Your task to perform on an android device: Open settings on Google Maps Image 0: 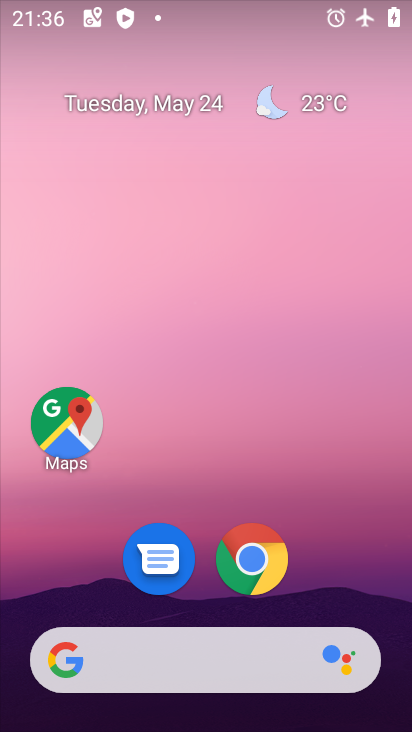
Step 0: drag from (329, 506) to (337, 132)
Your task to perform on an android device: Open settings on Google Maps Image 1: 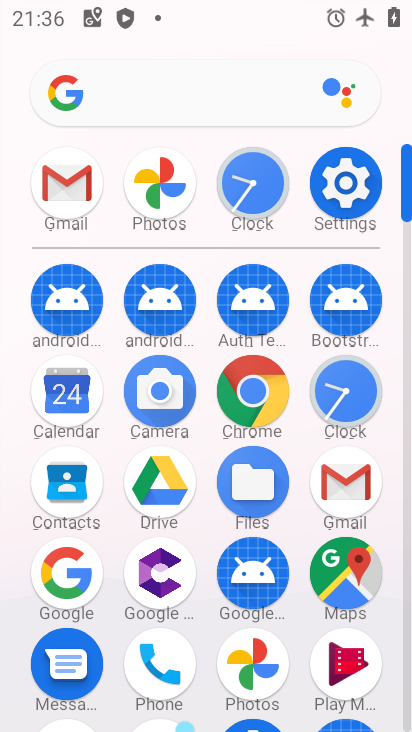
Step 1: click (361, 578)
Your task to perform on an android device: Open settings on Google Maps Image 2: 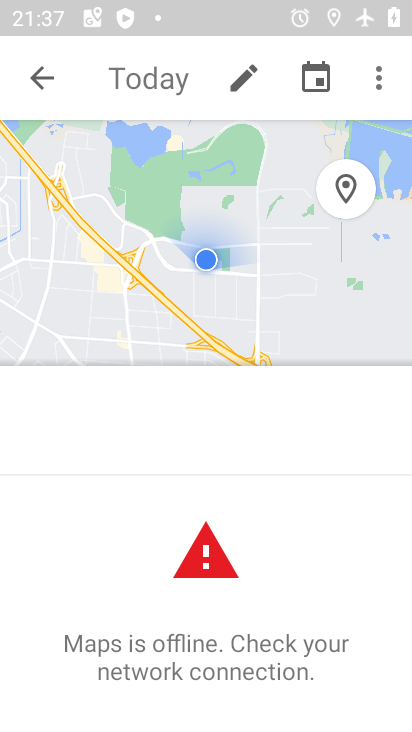
Step 2: click (50, 72)
Your task to perform on an android device: Open settings on Google Maps Image 3: 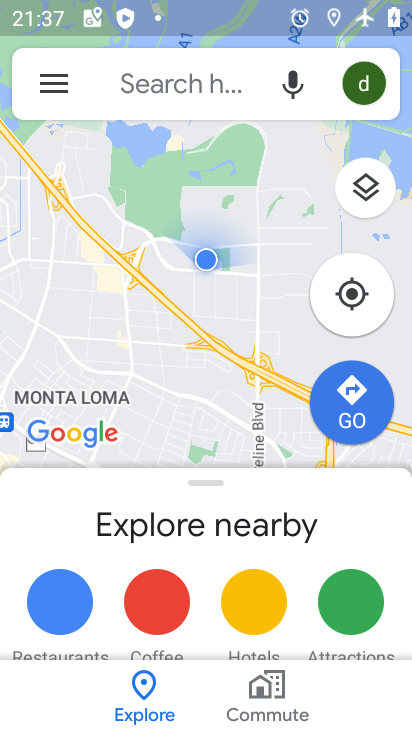
Step 3: click (50, 72)
Your task to perform on an android device: Open settings on Google Maps Image 4: 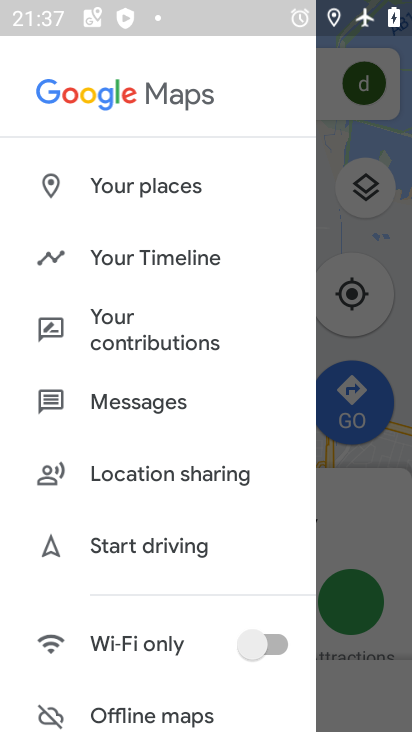
Step 4: drag from (190, 656) to (220, 193)
Your task to perform on an android device: Open settings on Google Maps Image 5: 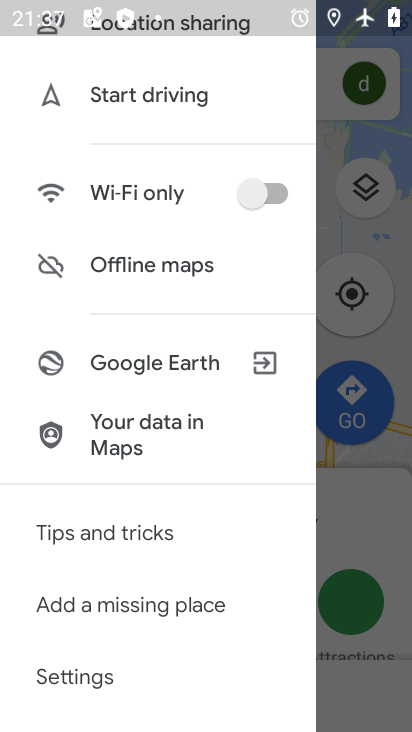
Step 5: click (104, 675)
Your task to perform on an android device: Open settings on Google Maps Image 6: 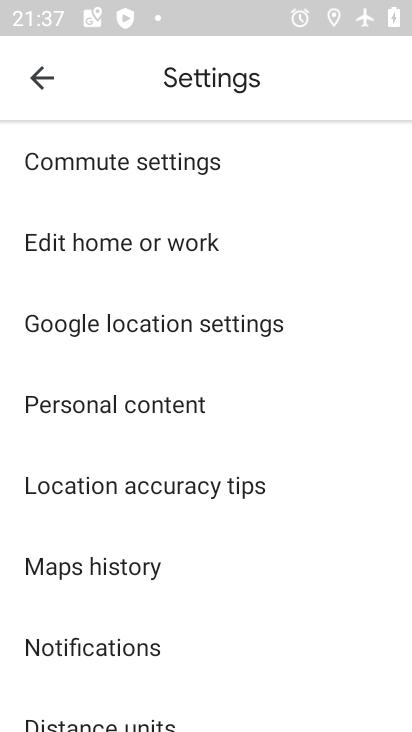
Step 6: task complete